Your task to perform on an android device: all mails in gmail Image 0: 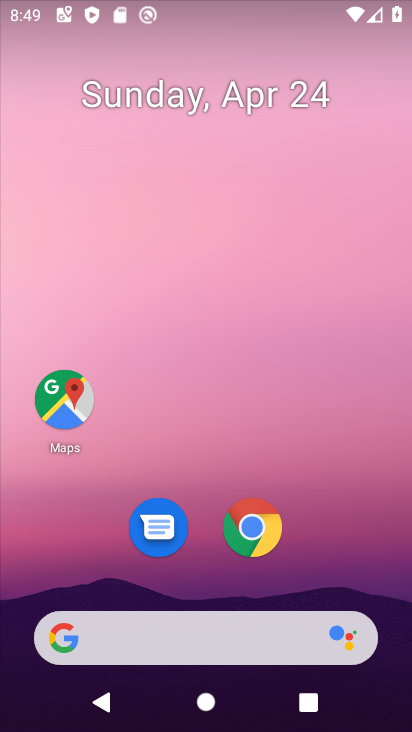
Step 0: drag from (398, 518) to (401, 0)
Your task to perform on an android device: all mails in gmail Image 1: 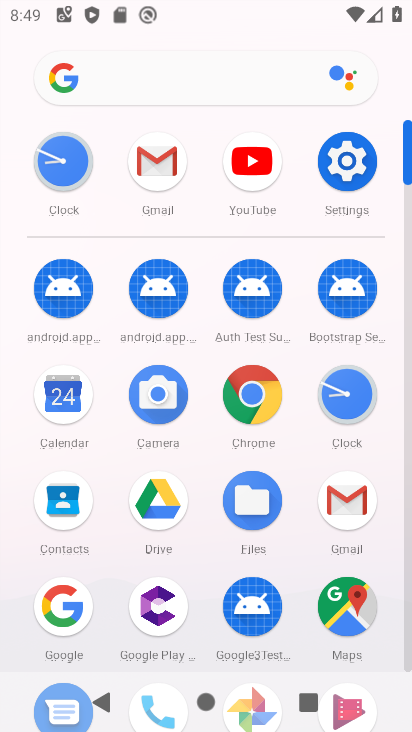
Step 1: click (145, 173)
Your task to perform on an android device: all mails in gmail Image 2: 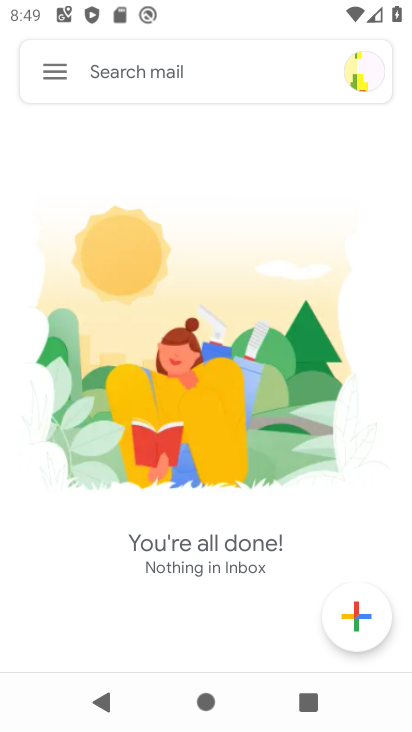
Step 2: click (55, 71)
Your task to perform on an android device: all mails in gmail Image 3: 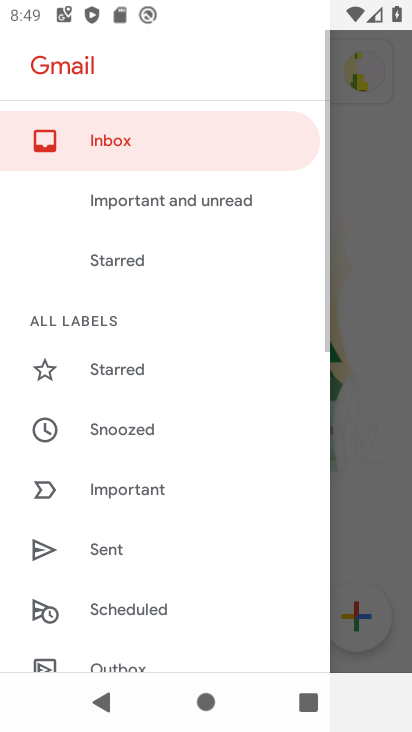
Step 3: drag from (213, 597) to (208, 146)
Your task to perform on an android device: all mails in gmail Image 4: 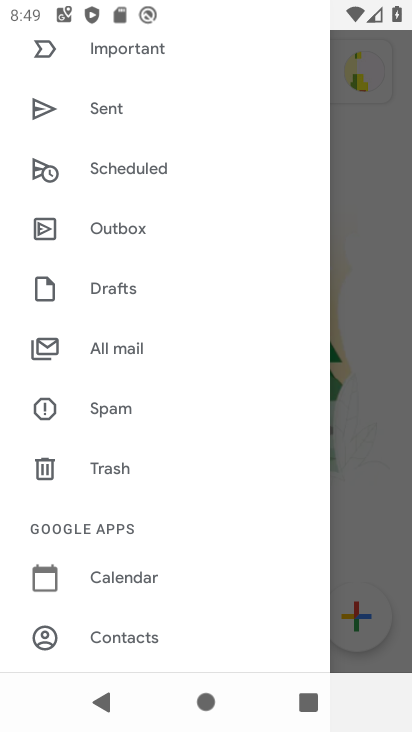
Step 4: click (113, 343)
Your task to perform on an android device: all mails in gmail Image 5: 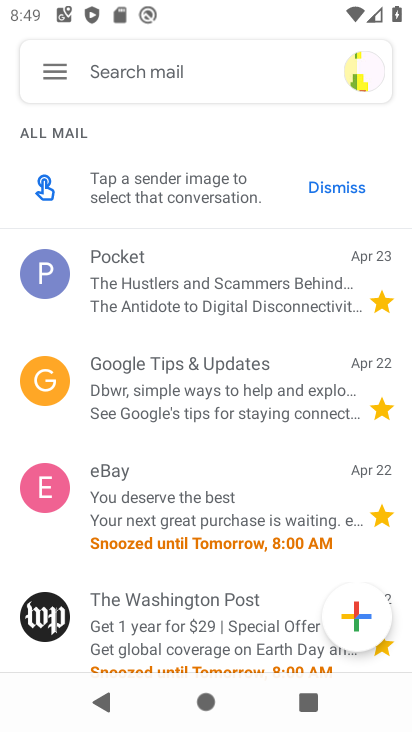
Step 5: task complete